Your task to perform on an android device: What's the weather? Image 0: 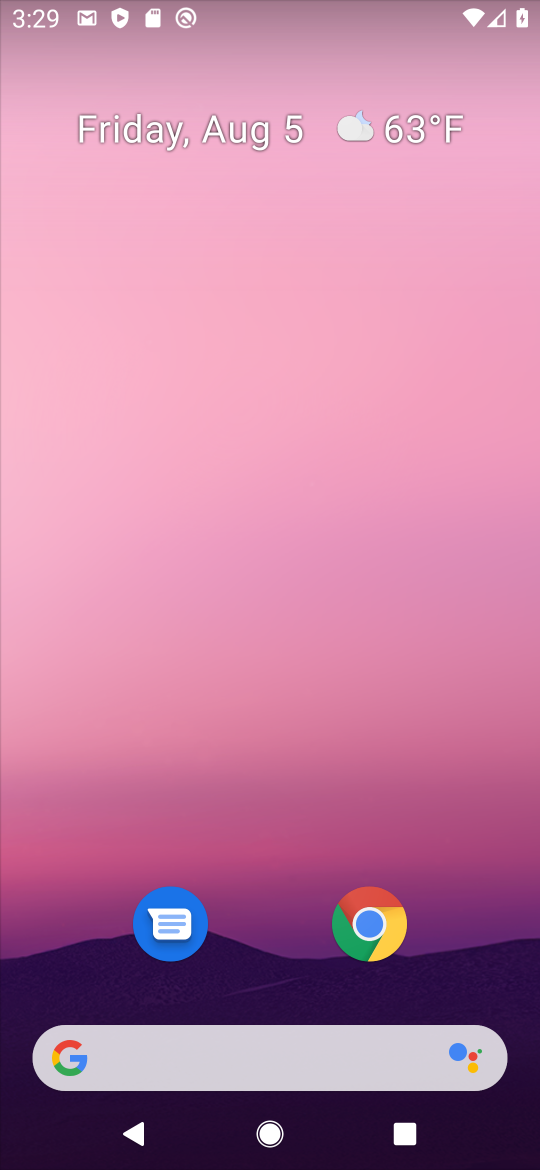
Step 0: drag from (297, 849) to (342, 79)
Your task to perform on an android device: What's the weather? Image 1: 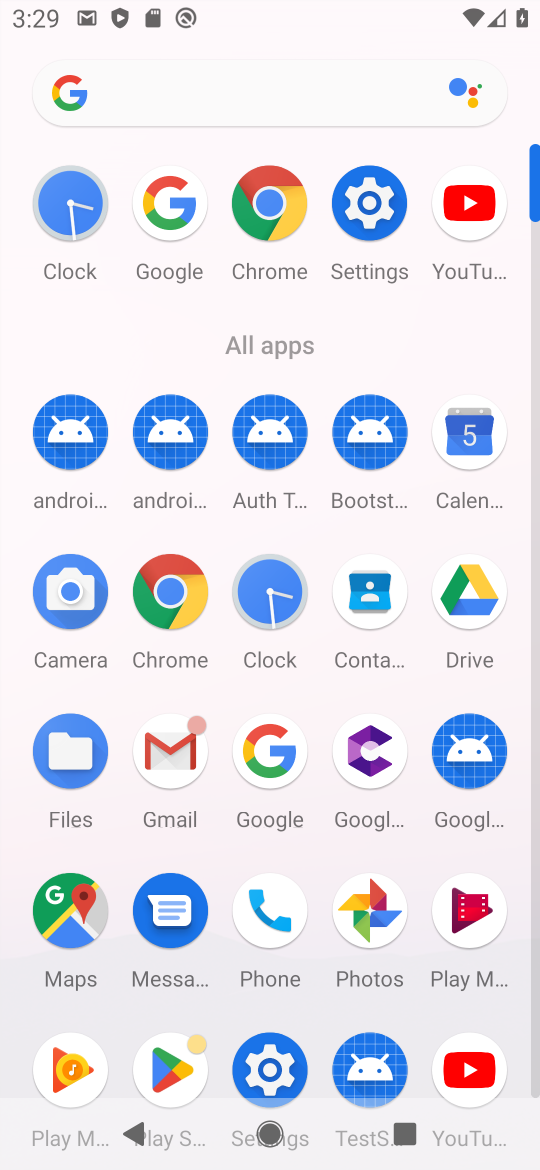
Step 1: click (260, 222)
Your task to perform on an android device: What's the weather? Image 2: 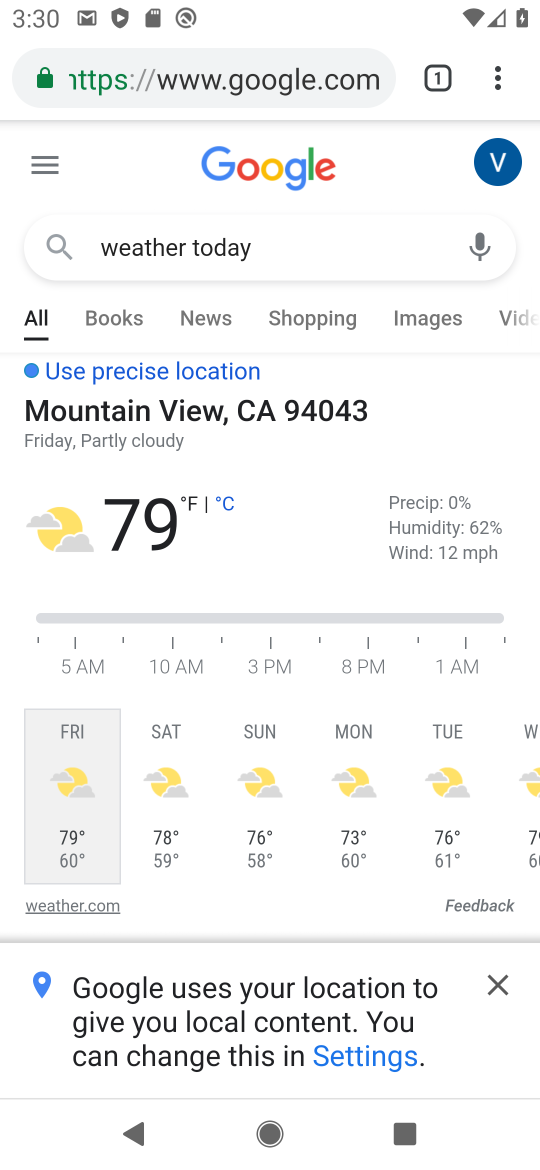
Step 2: task complete